Your task to perform on an android device: change your default location settings in chrome Image 0: 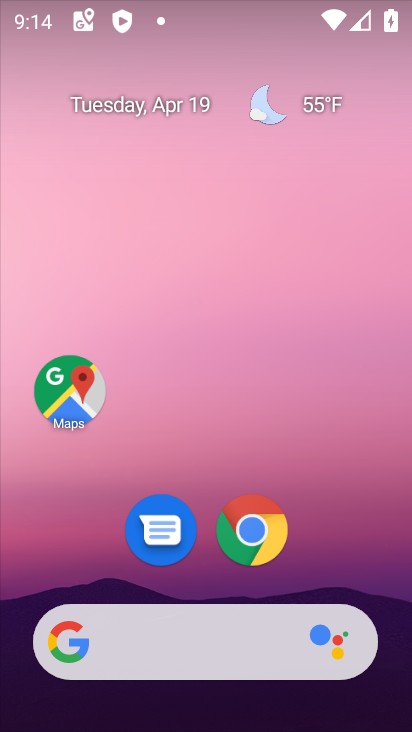
Step 0: click (250, 531)
Your task to perform on an android device: change your default location settings in chrome Image 1: 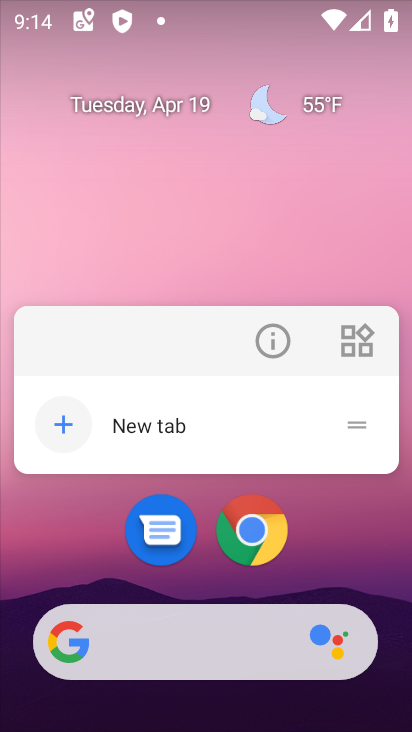
Step 1: click (340, 502)
Your task to perform on an android device: change your default location settings in chrome Image 2: 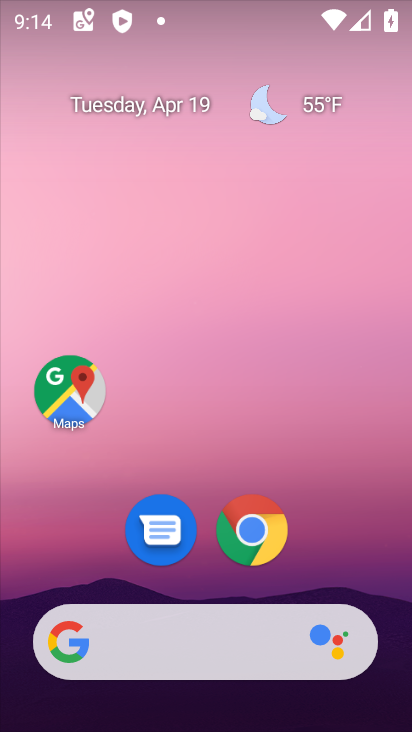
Step 2: click (254, 533)
Your task to perform on an android device: change your default location settings in chrome Image 3: 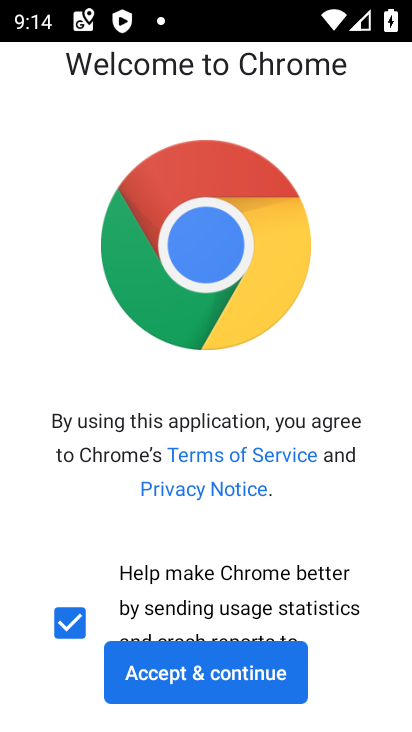
Step 3: click (231, 677)
Your task to perform on an android device: change your default location settings in chrome Image 4: 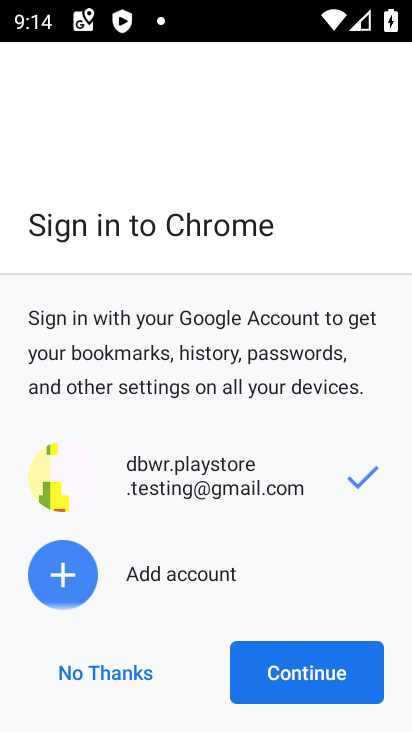
Step 4: click (283, 672)
Your task to perform on an android device: change your default location settings in chrome Image 5: 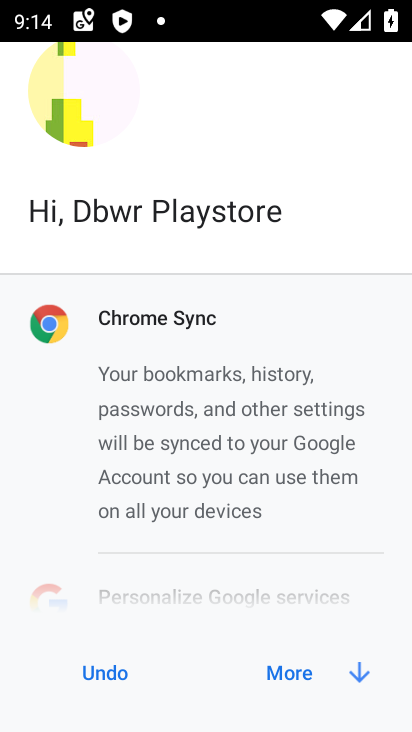
Step 5: click (283, 672)
Your task to perform on an android device: change your default location settings in chrome Image 6: 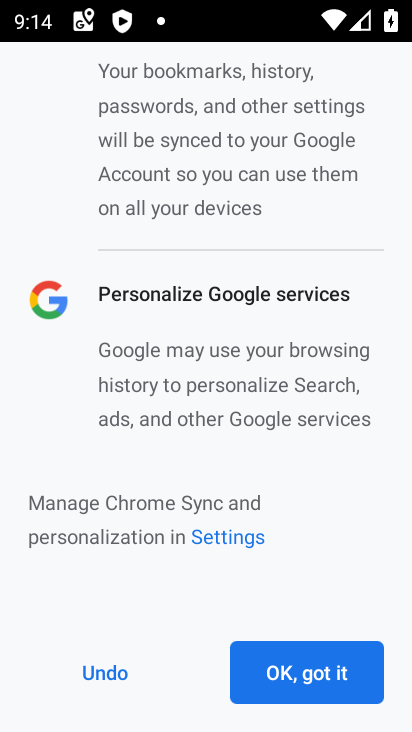
Step 6: click (283, 672)
Your task to perform on an android device: change your default location settings in chrome Image 7: 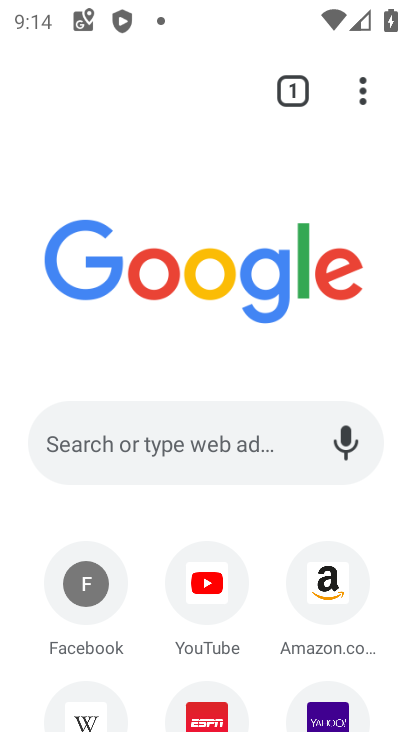
Step 7: click (358, 89)
Your task to perform on an android device: change your default location settings in chrome Image 8: 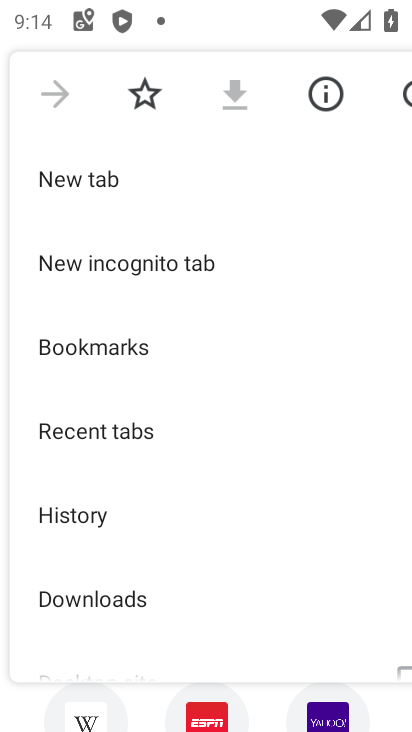
Step 8: drag from (208, 505) to (208, 170)
Your task to perform on an android device: change your default location settings in chrome Image 9: 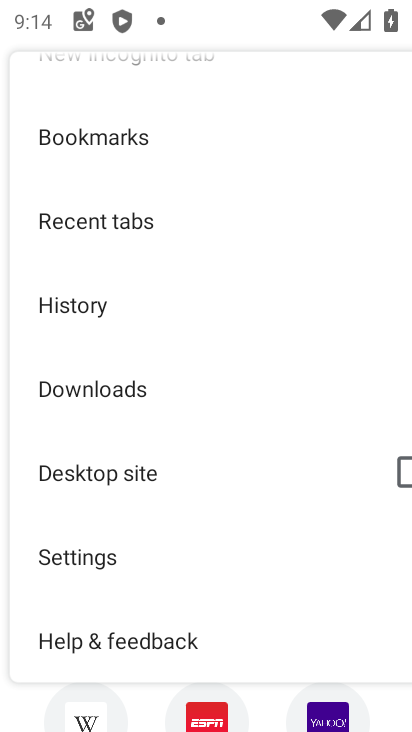
Step 9: click (138, 552)
Your task to perform on an android device: change your default location settings in chrome Image 10: 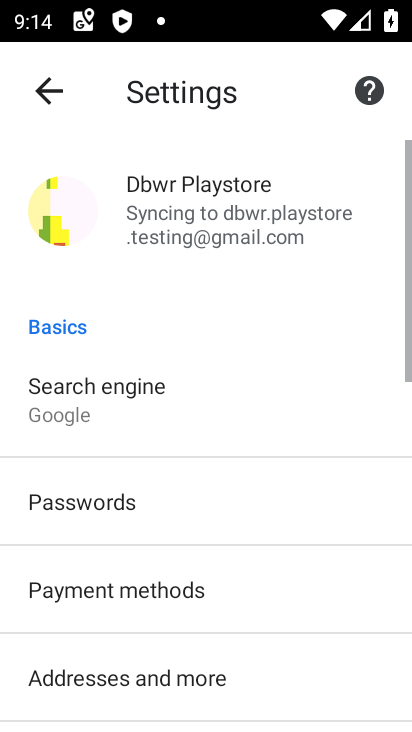
Step 10: drag from (212, 571) to (223, 321)
Your task to perform on an android device: change your default location settings in chrome Image 11: 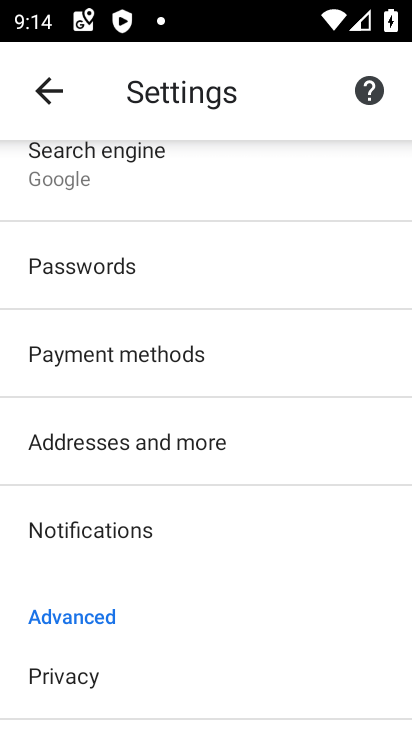
Step 11: drag from (176, 319) to (217, 299)
Your task to perform on an android device: change your default location settings in chrome Image 12: 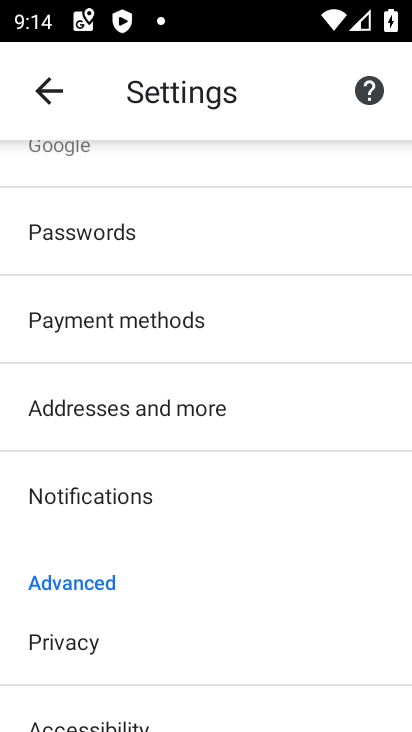
Step 12: drag from (172, 603) to (207, 383)
Your task to perform on an android device: change your default location settings in chrome Image 13: 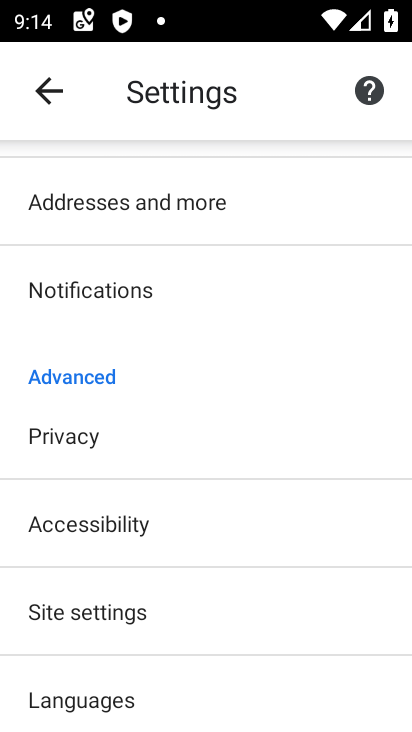
Step 13: click (109, 603)
Your task to perform on an android device: change your default location settings in chrome Image 14: 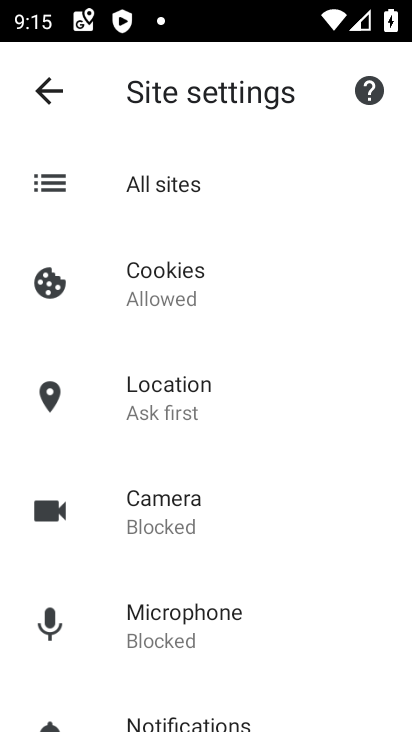
Step 14: drag from (227, 600) to (230, 343)
Your task to perform on an android device: change your default location settings in chrome Image 15: 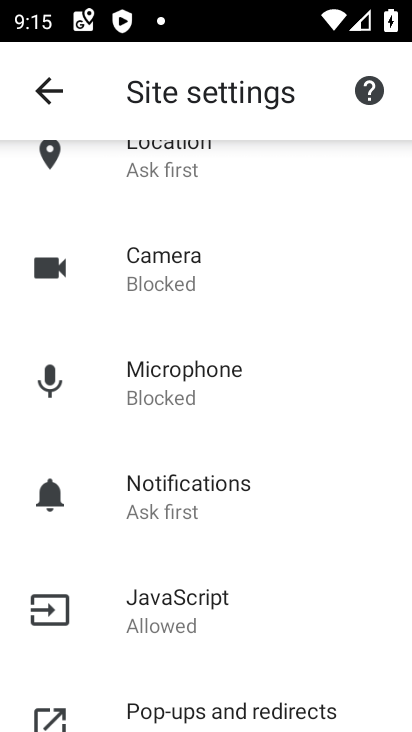
Step 15: click (224, 168)
Your task to perform on an android device: change your default location settings in chrome Image 16: 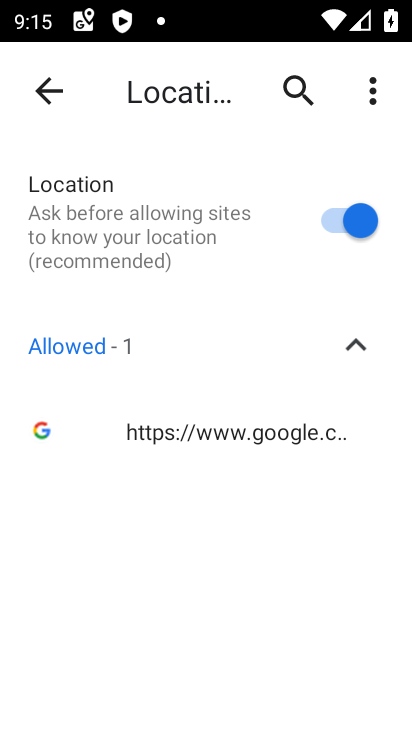
Step 16: click (341, 232)
Your task to perform on an android device: change your default location settings in chrome Image 17: 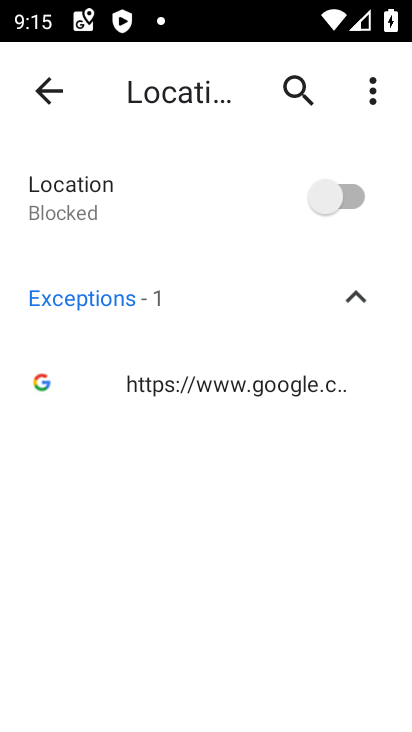
Step 17: task complete